Your task to perform on an android device: open a new tab in the chrome app Image 0: 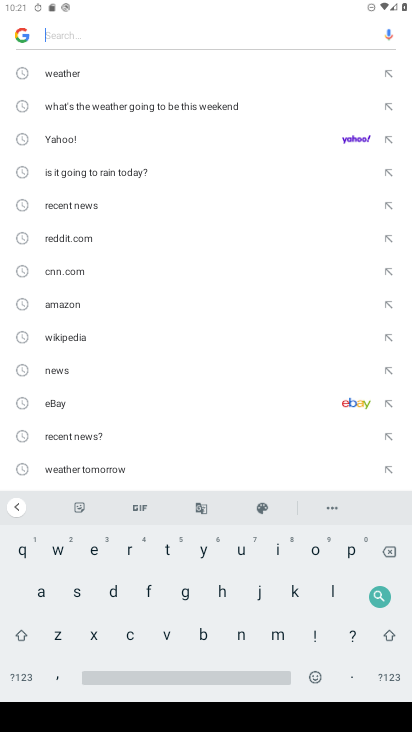
Step 0: press home button
Your task to perform on an android device: open a new tab in the chrome app Image 1: 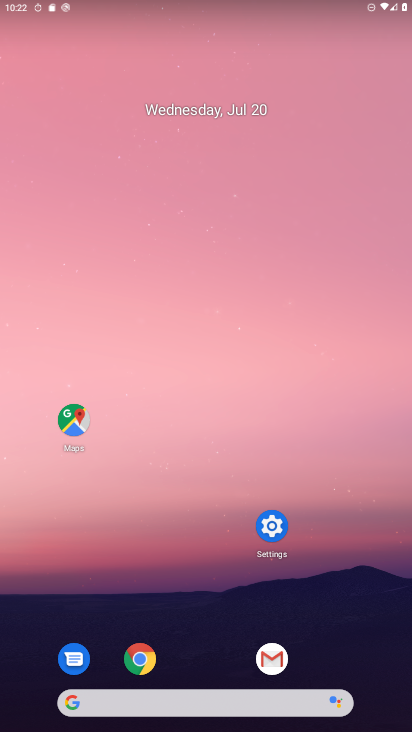
Step 1: click (137, 649)
Your task to perform on an android device: open a new tab in the chrome app Image 2: 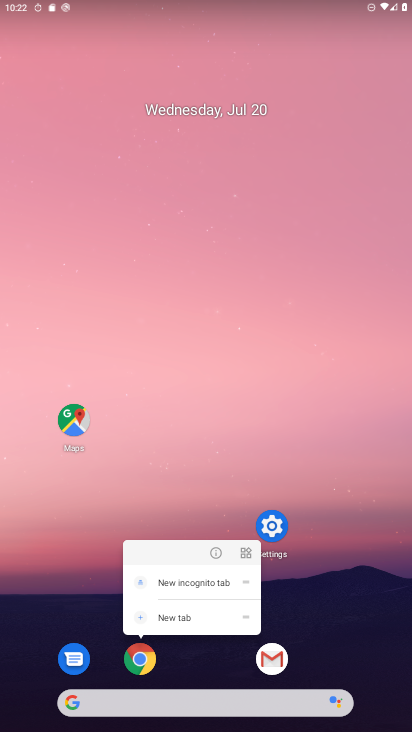
Step 2: click (136, 669)
Your task to perform on an android device: open a new tab in the chrome app Image 3: 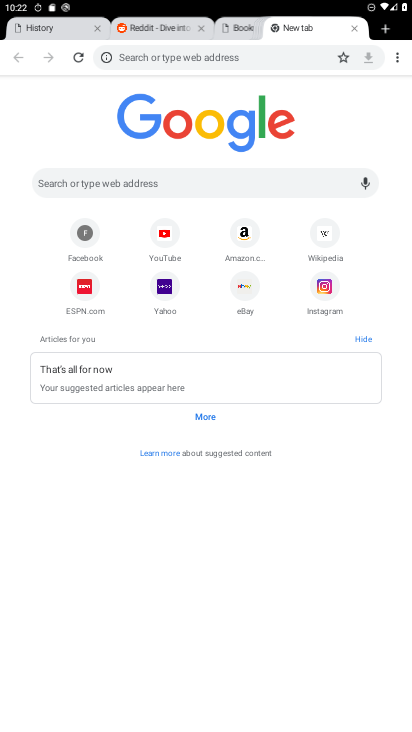
Step 3: click (382, 28)
Your task to perform on an android device: open a new tab in the chrome app Image 4: 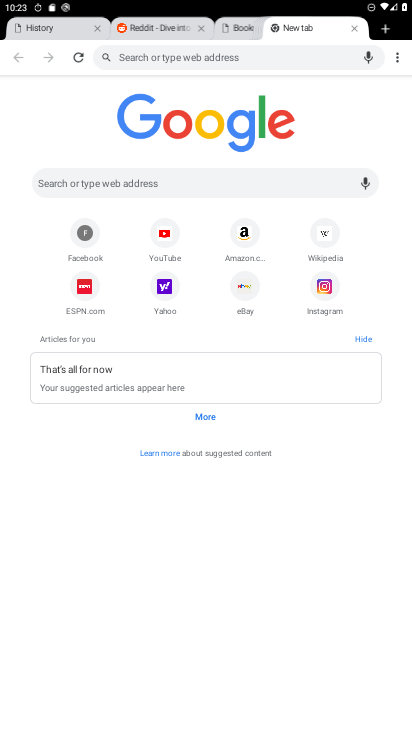
Step 4: task complete